Your task to perform on an android device: Open Amazon Image 0: 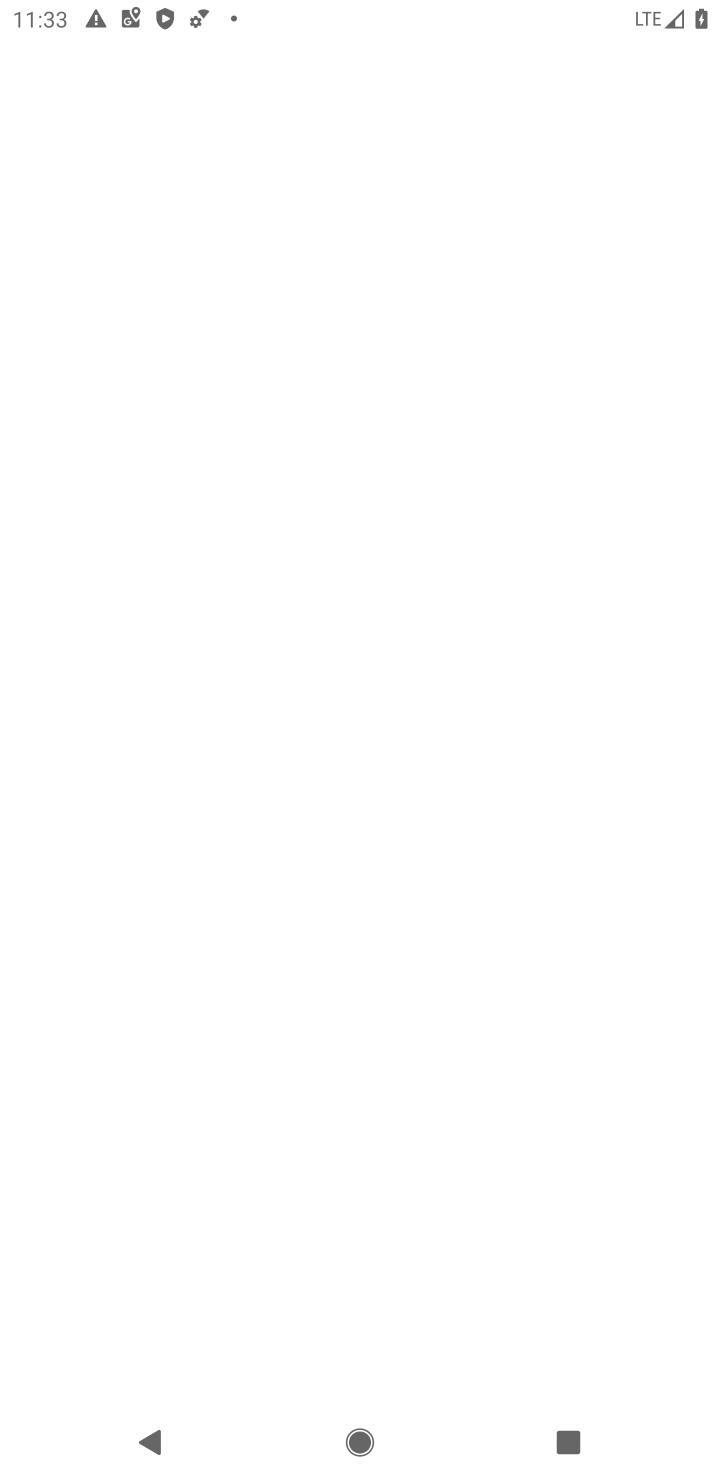
Step 0: press home button
Your task to perform on an android device: Open Amazon Image 1: 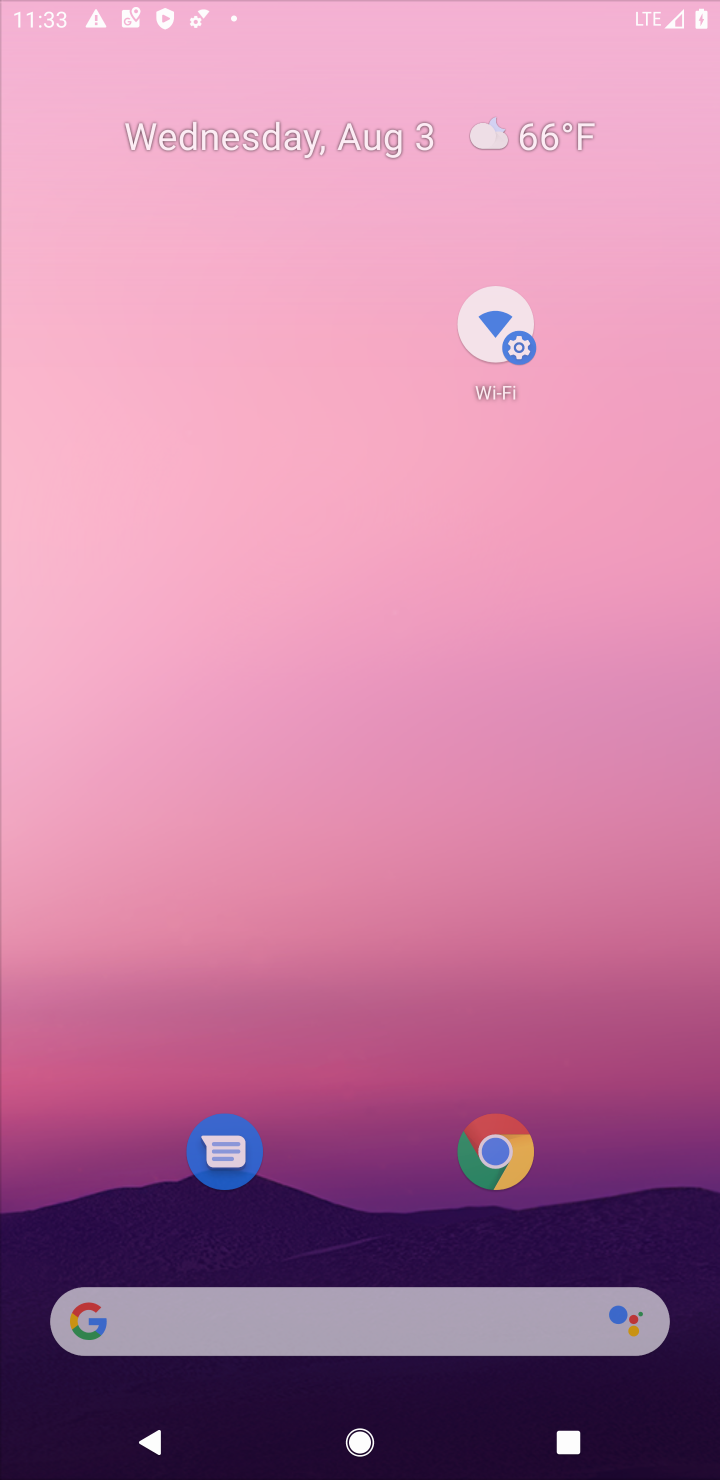
Step 1: click (544, 405)
Your task to perform on an android device: Open Amazon Image 2: 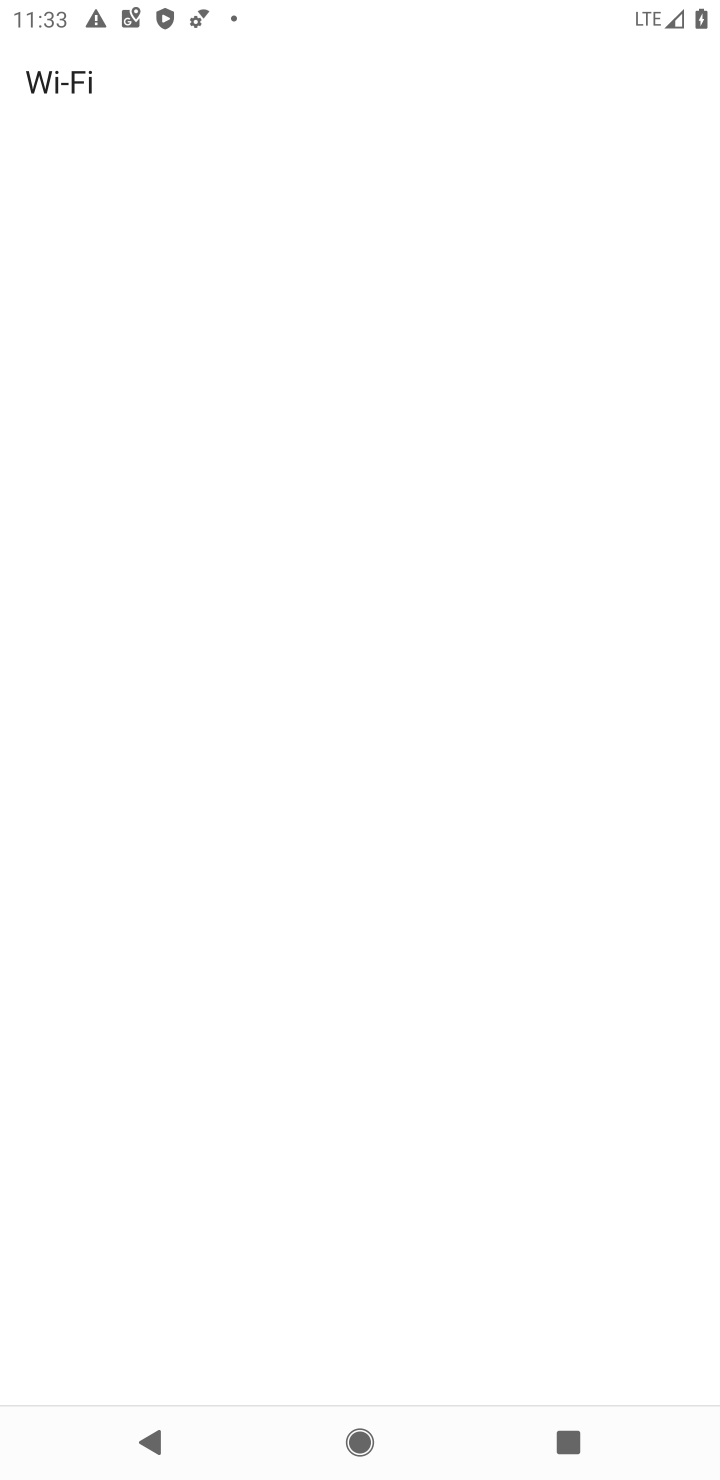
Step 2: click (498, 1169)
Your task to perform on an android device: Open Amazon Image 3: 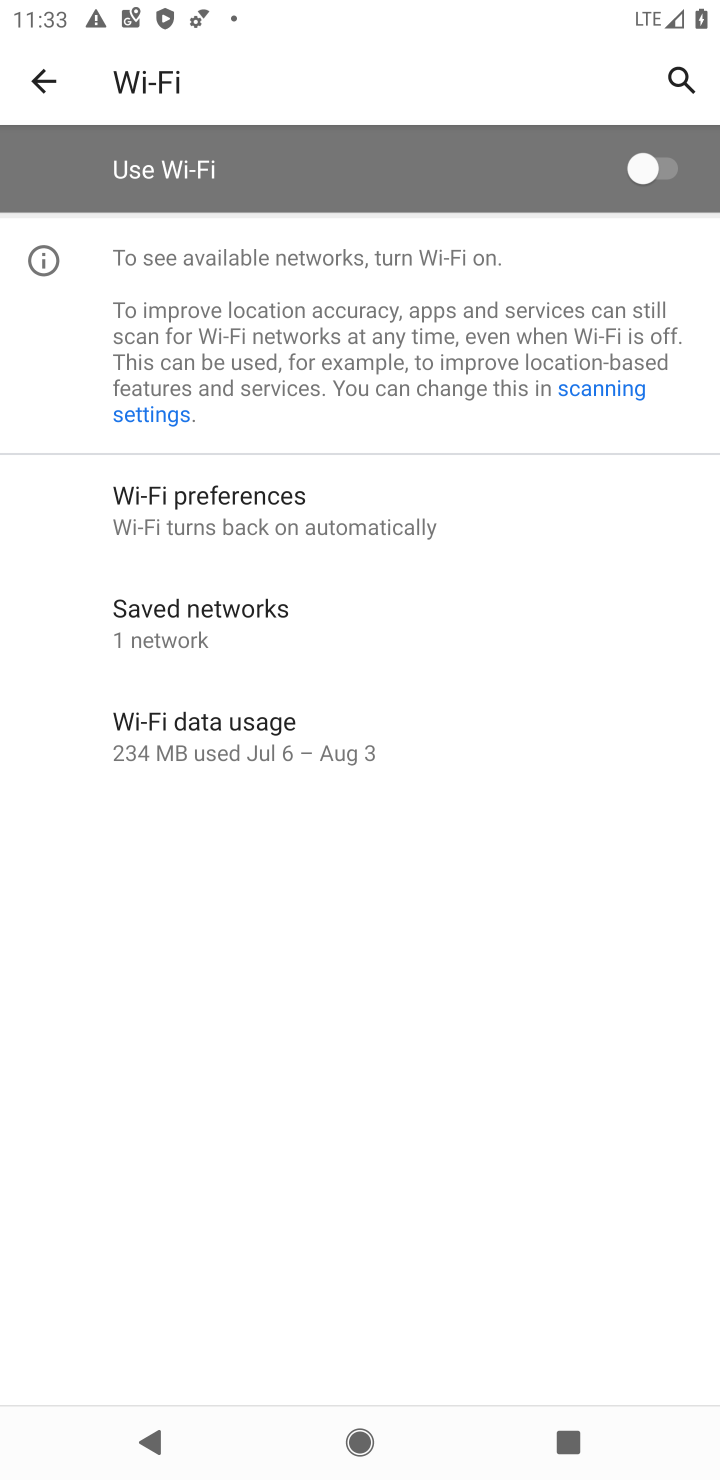
Step 3: press home button
Your task to perform on an android device: Open Amazon Image 4: 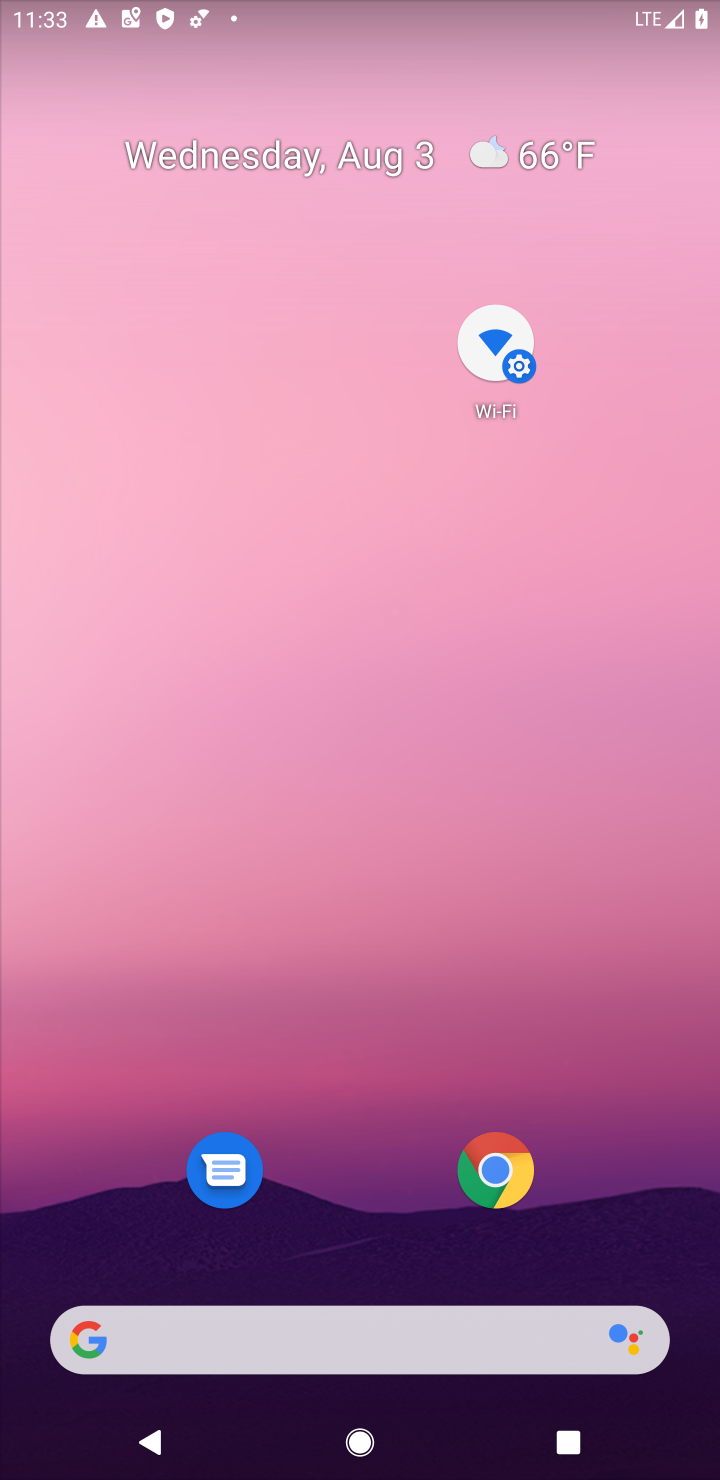
Step 4: click (477, 1172)
Your task to perform on an android device: Open Amazon Image 5: 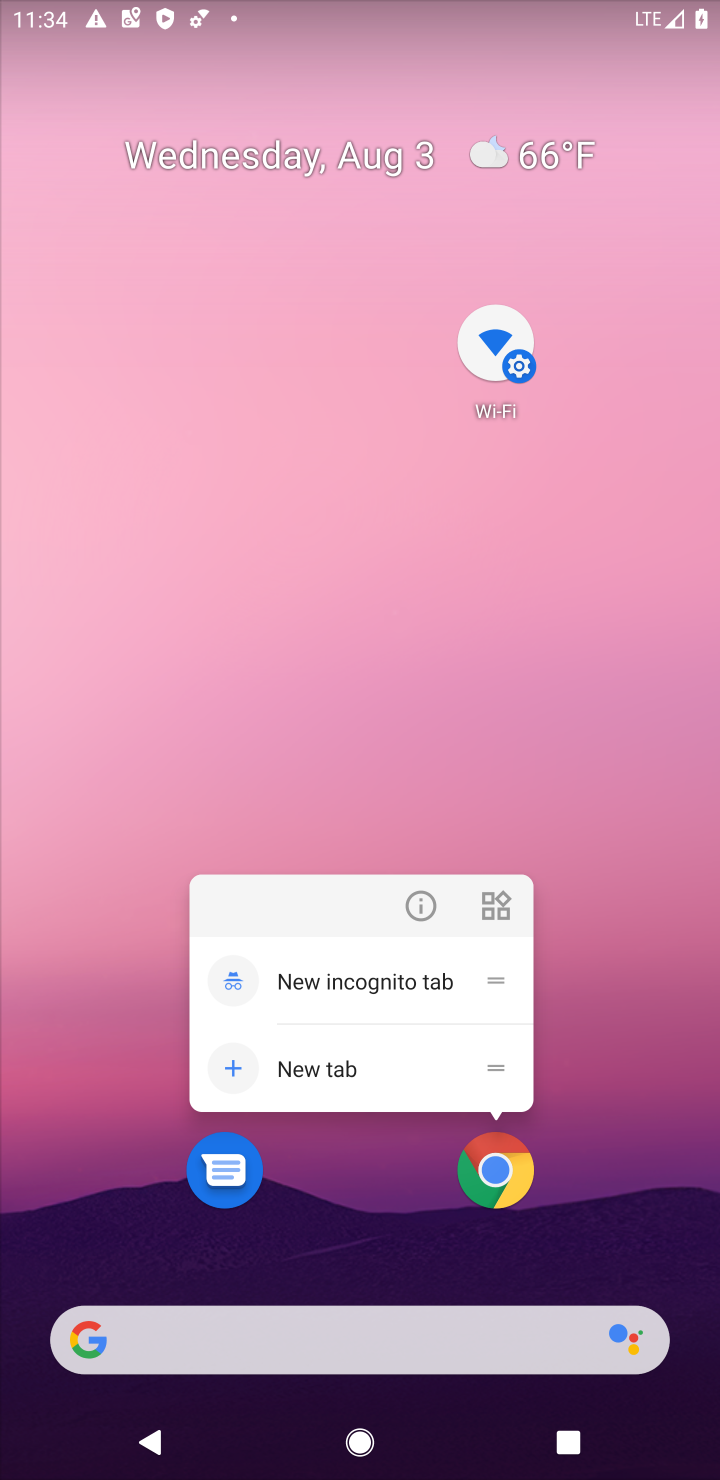
Step 5: click (430, 913)
Your task to perform on an android device: Open Amazon Image 6: 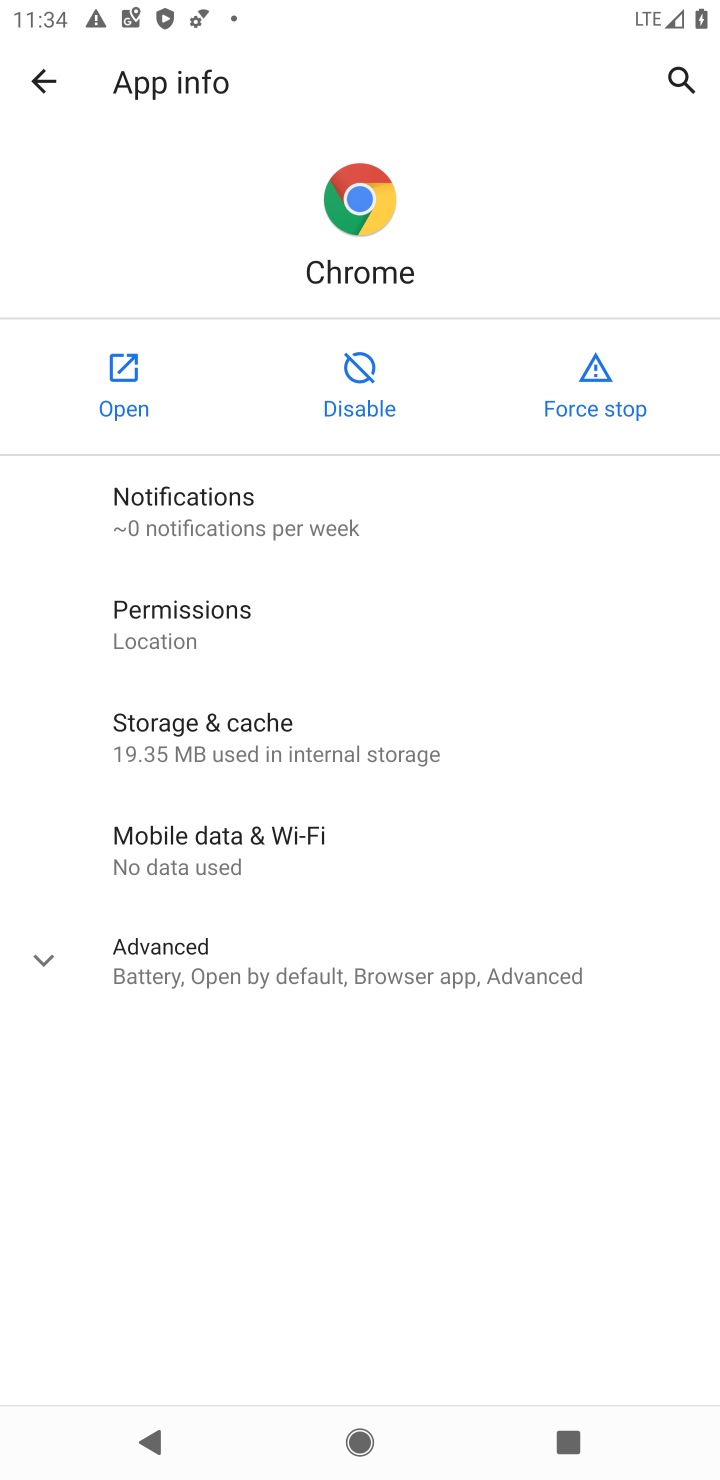
Step 6: click (117, 388)
Your task to perform on an android device: Open Amazon Image 7: 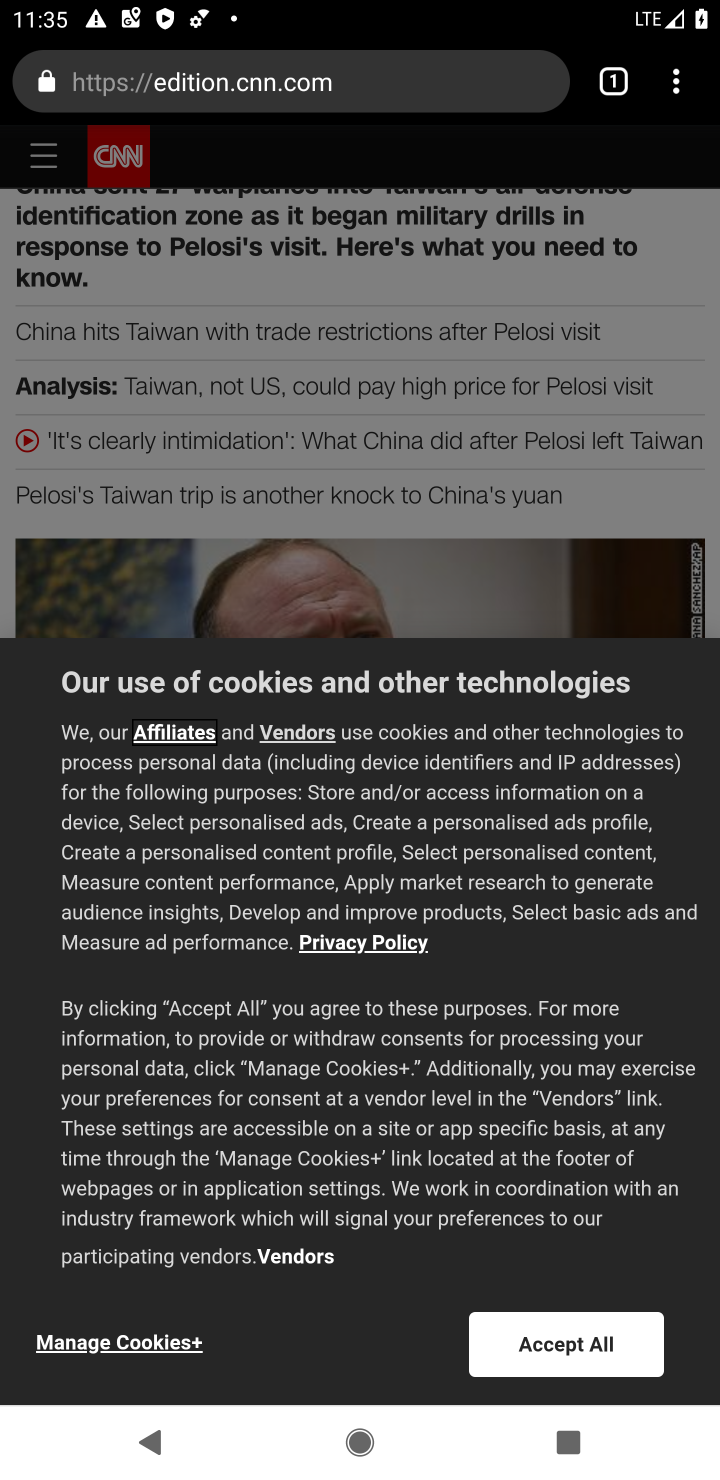
Step 7: drag from (338, 1236) to (410, 523)
Your task to perform on an android device: Open Amazon Image 8: 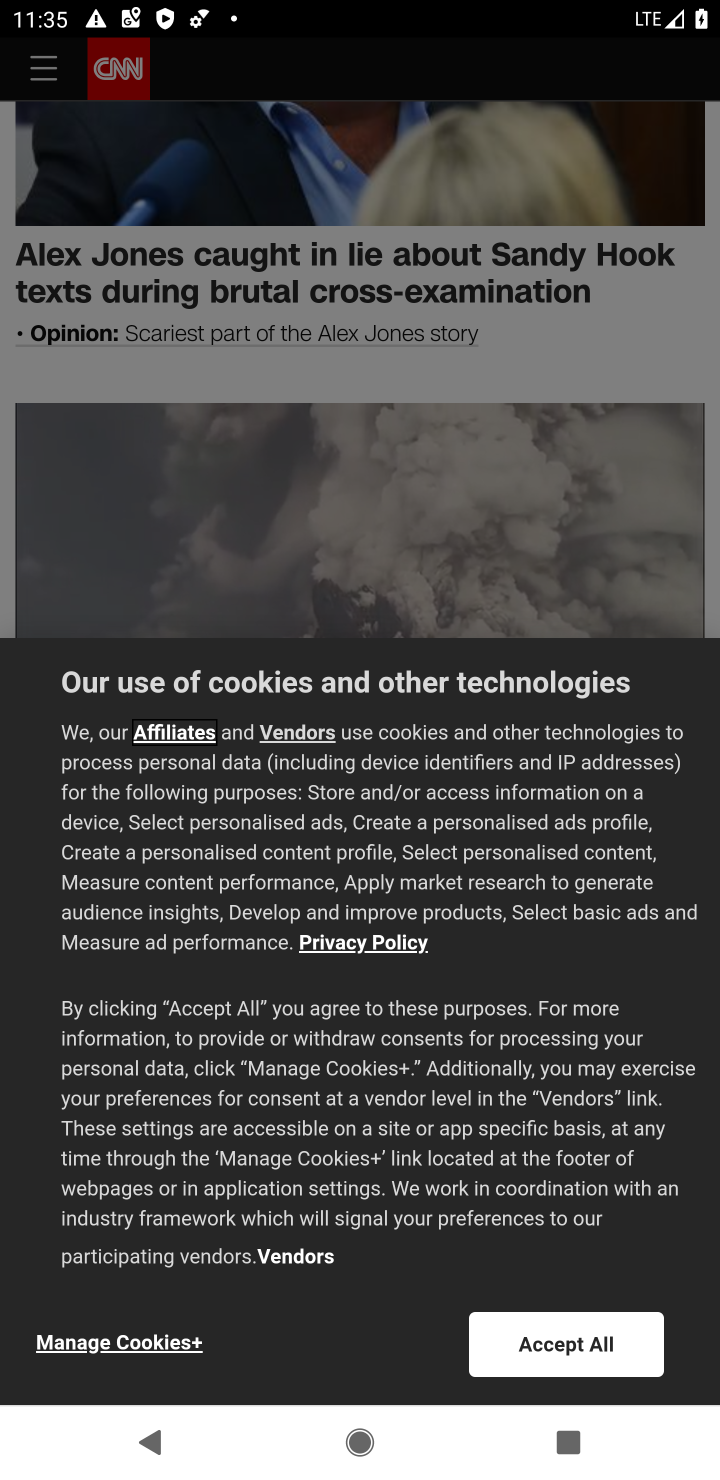
Step 8: drag from (395, 441) to (458, 1443)
Your task to perform on an android device: Open Amazon Image 9: 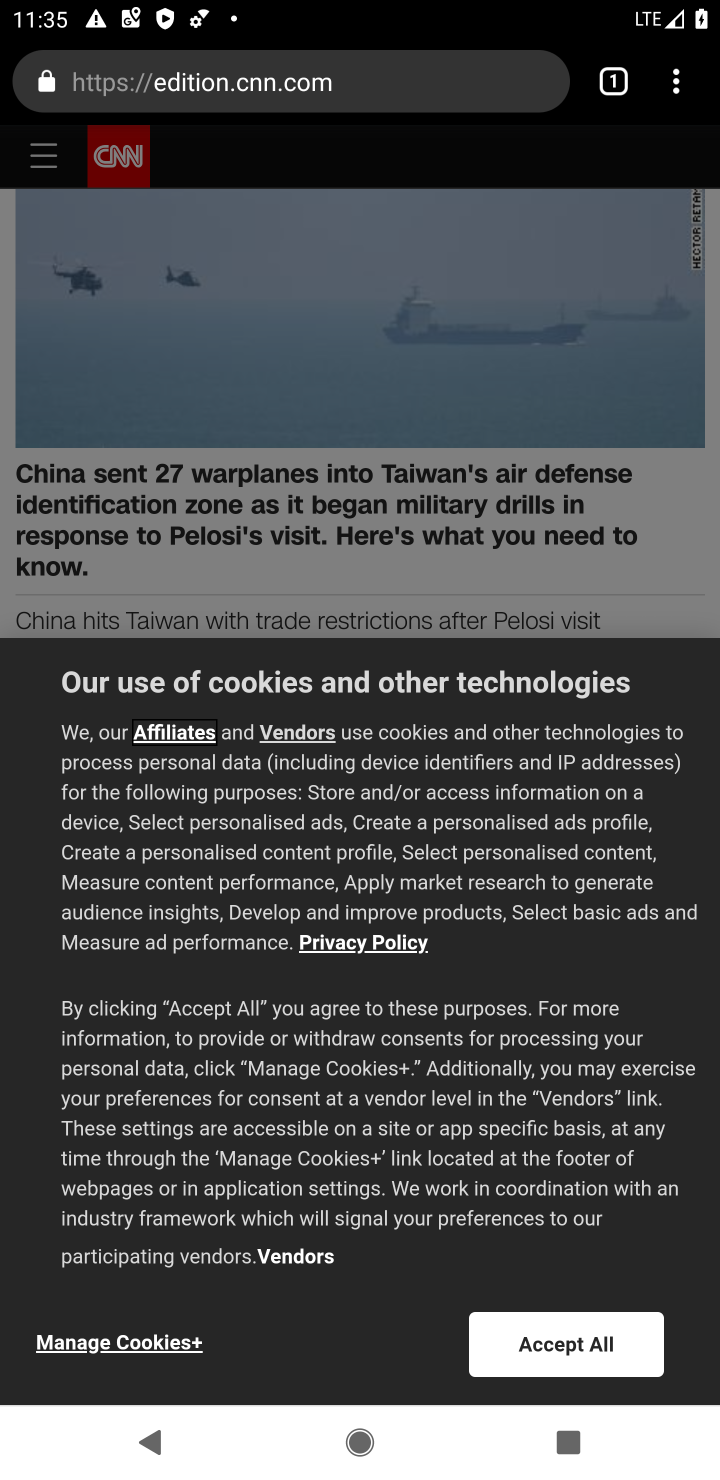
Step 9: click (263, 90)
Your task to perform on an android device: Open Amazon Image 10: 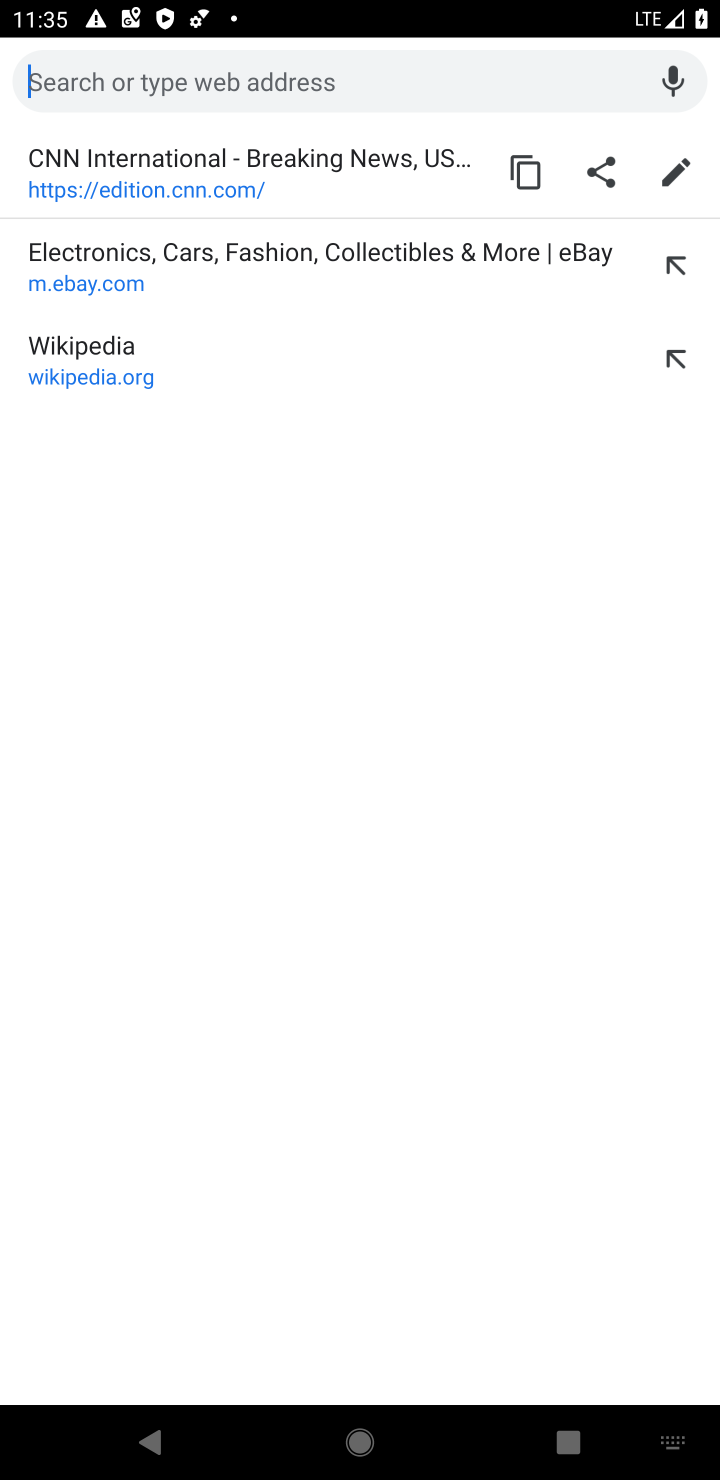
Step 10: type "amazon"
Your task to perform on an android device: Open Amazon Image 11: 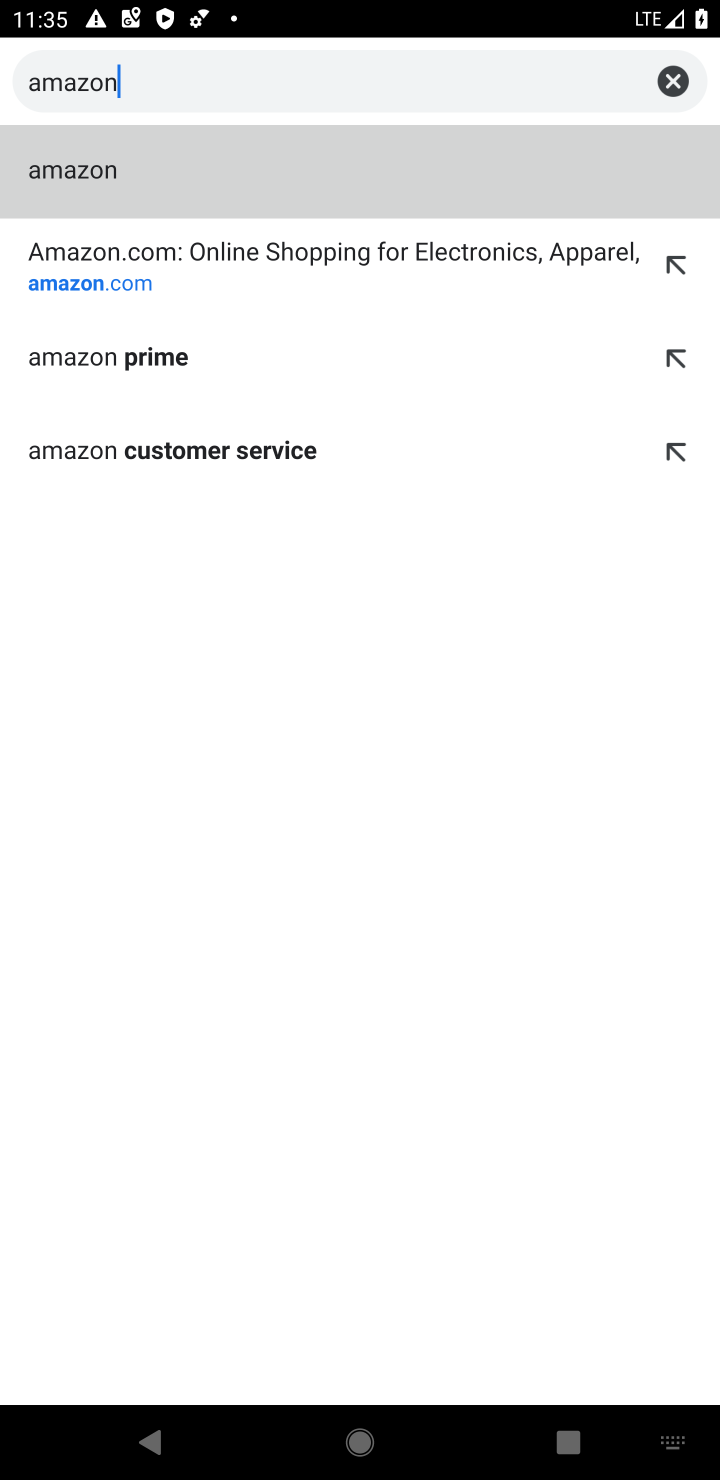
Step 11: click (123, 256)
Your task to perform on an android device: Open Amazon Image 12: 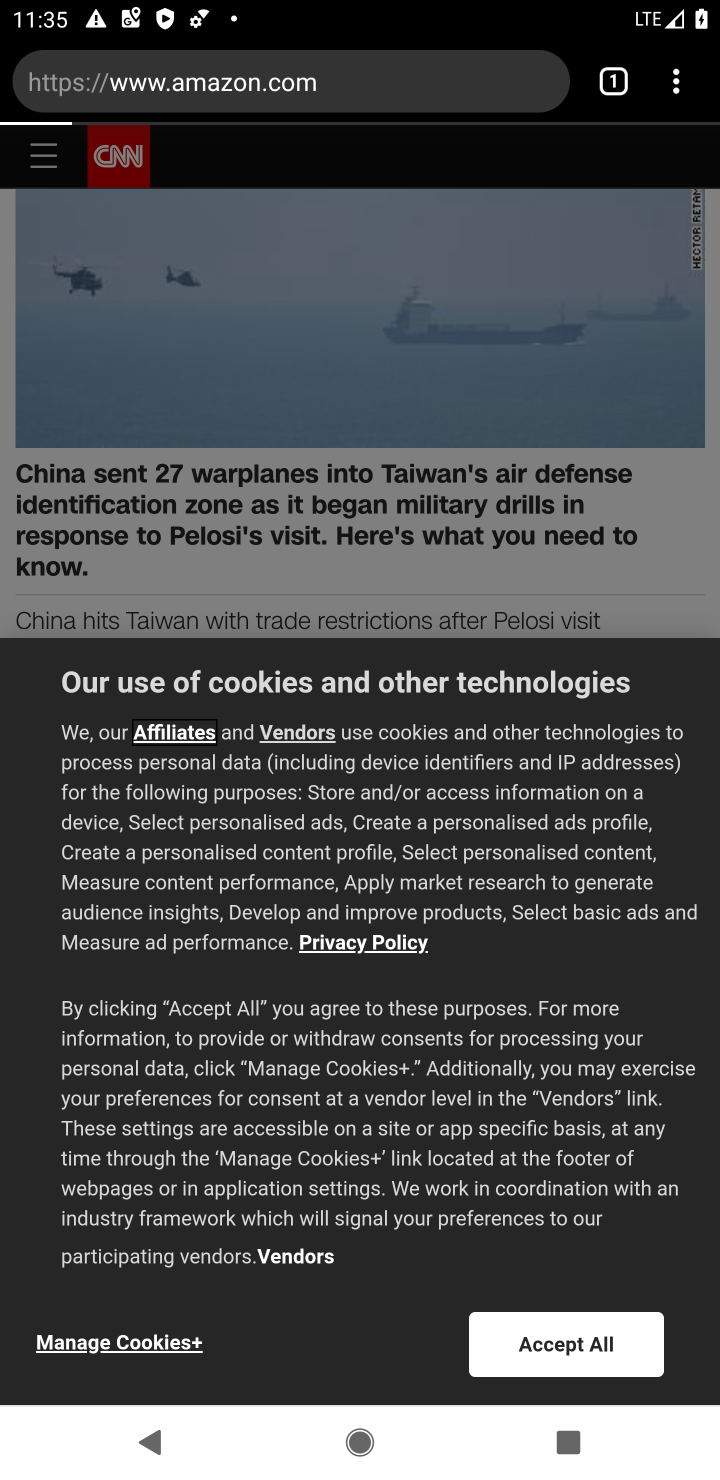
Step 12: click (64, 276)
Your task to perform on an android device: Open Amazon Image 13: 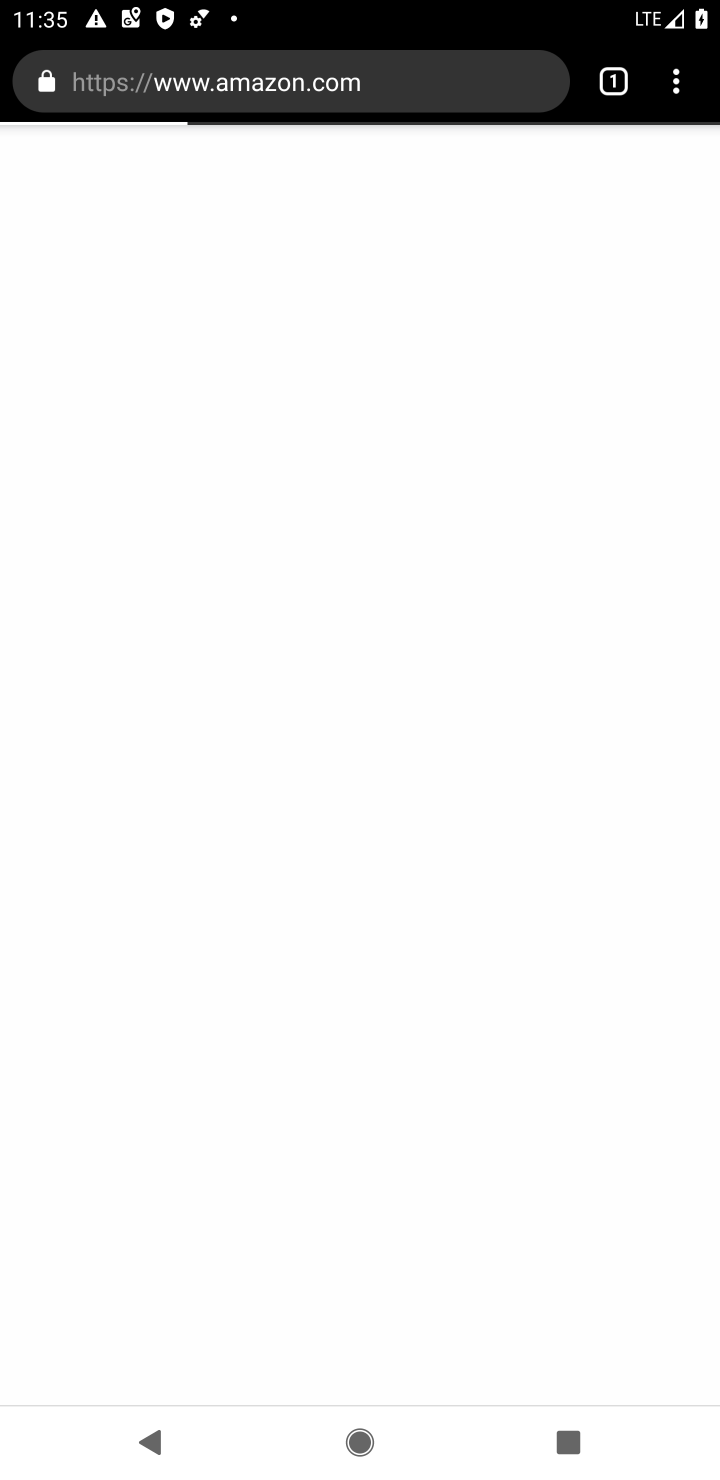
Step 13: task complete